Your task to perform on an android device: turn off smart reply in the gmail app Image 0: 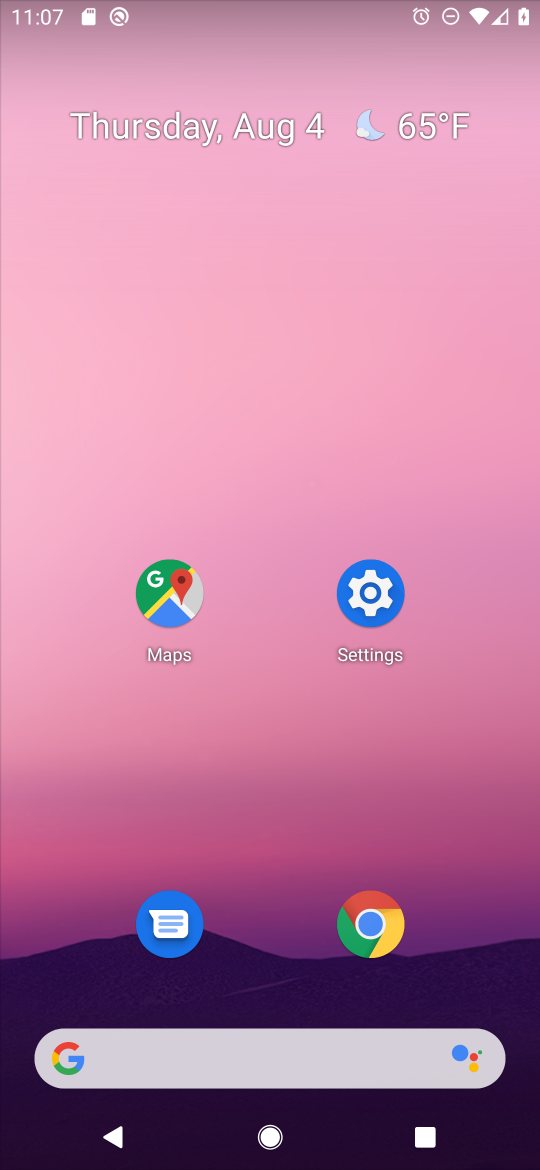
Step 0: drag from (314, 857) to (491, 166)
Your task to perform on an android device: turn off smart reply in the gmail app Image 1: 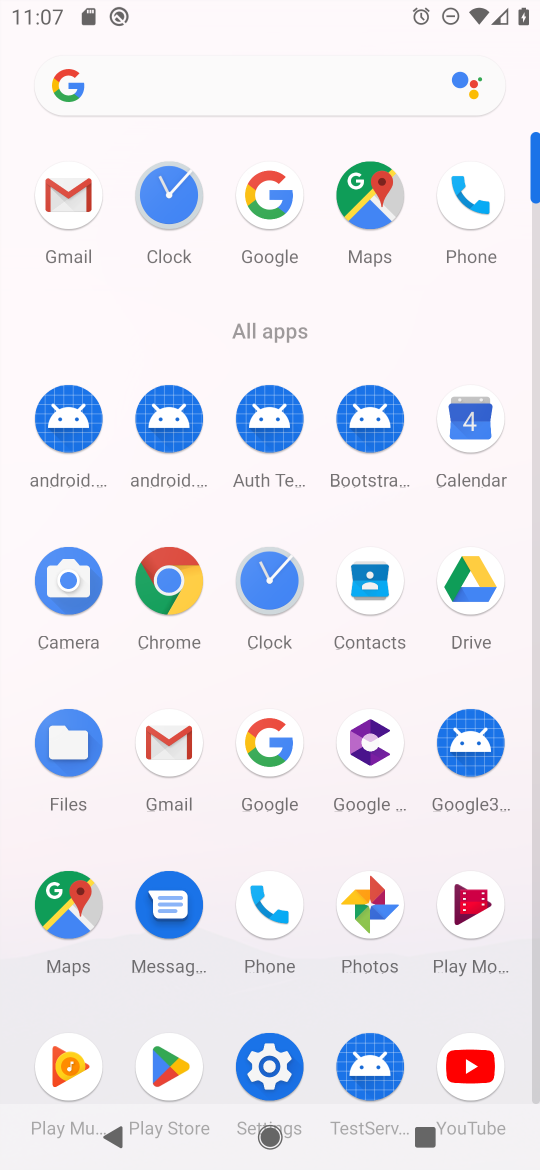
Step 1: click (68, 201)
Your task to perform on an android device: turn off smart reply in the gmail app Image 2: 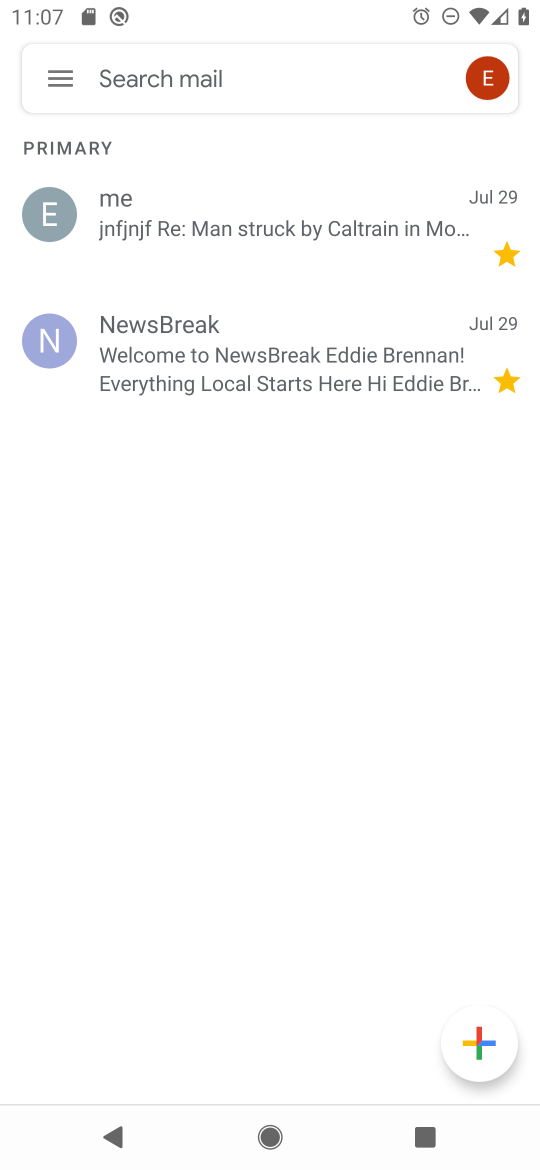
Step 2: click (58, 74)
Your task to perform on an android device: turn off smart reply in the gmail app Image 3: 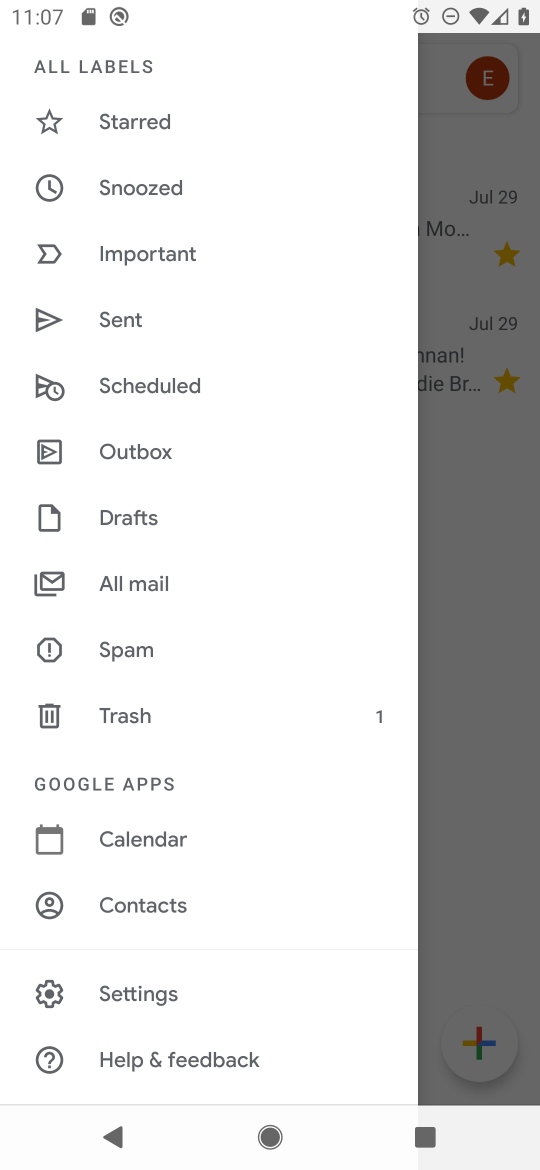
Step 3: click (150, 995)
Your task to perform on an android device: turn off smart reply in the gmail app Image 4: 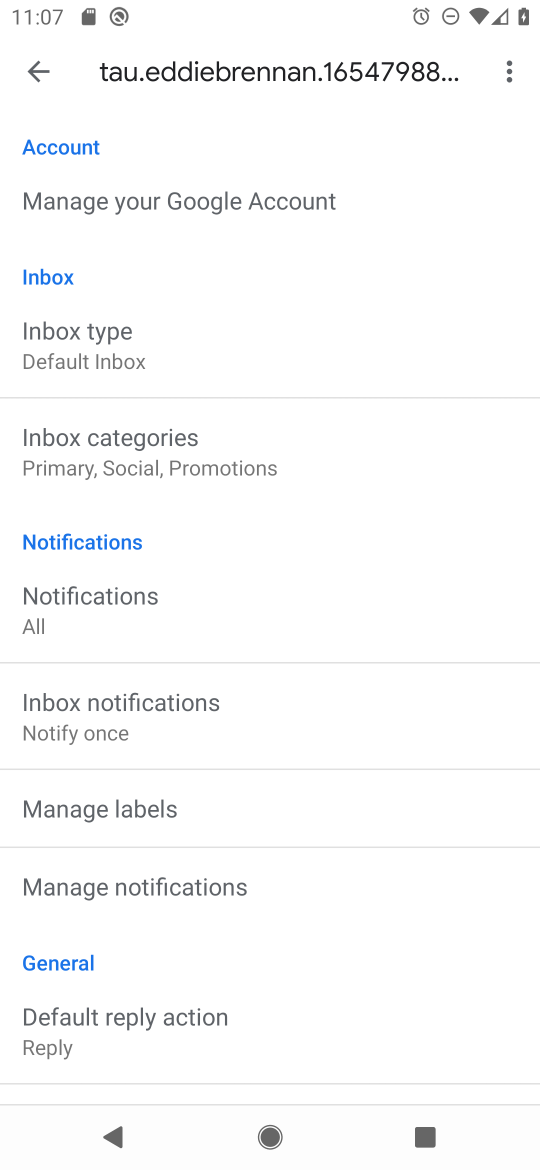
Step 4: drag from (312, 948) to (467, 93)
Your task to perform on an android device: turn off smart reply in the gmail app Image 5: 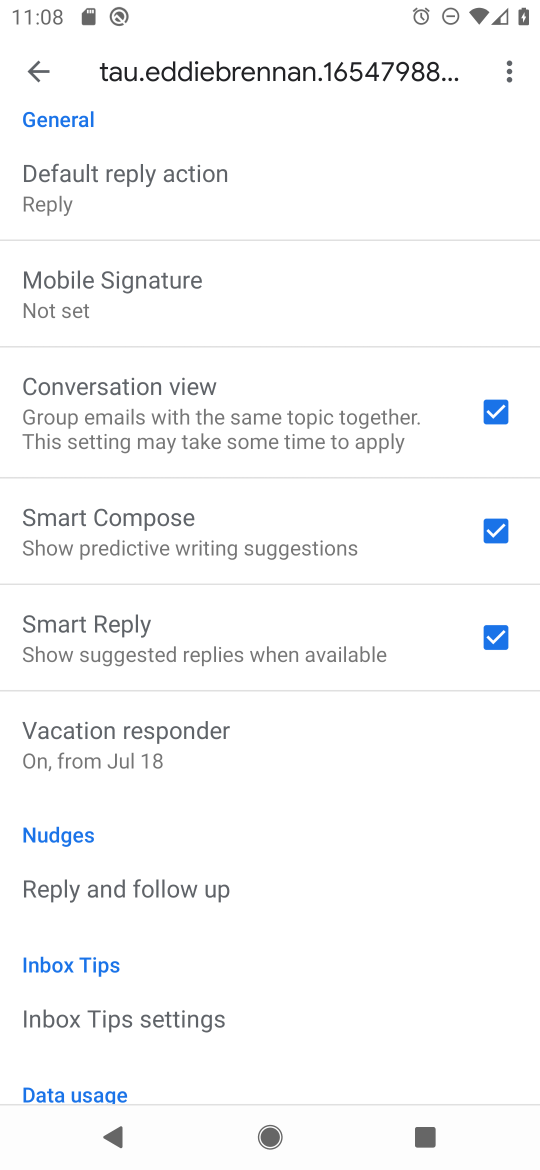
Step 5: click (499, 630)
Your task to perform on an android device: turn off smart reply in the gmail app Image 6: 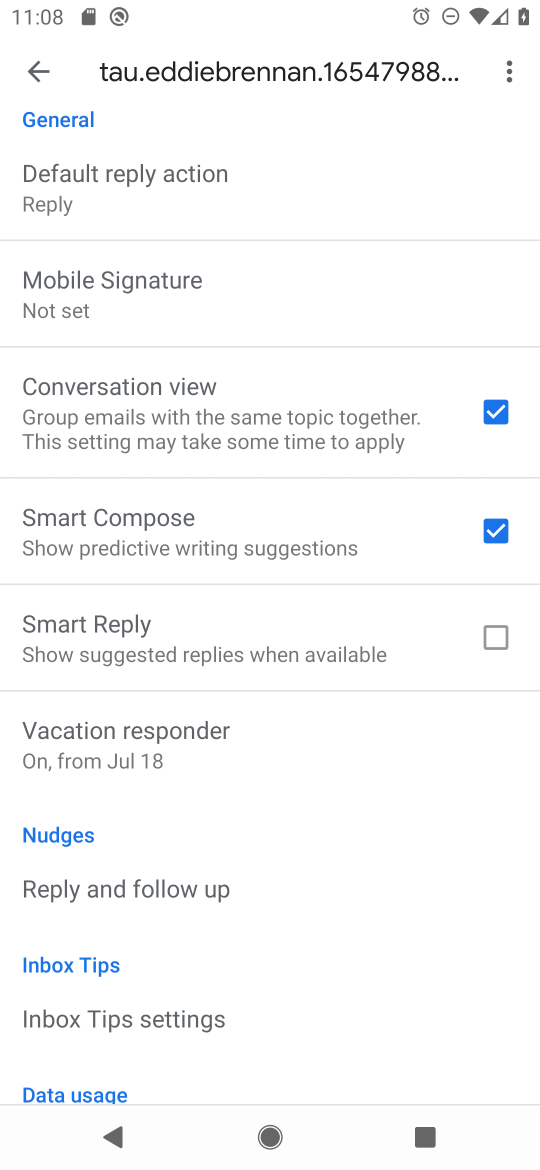
Step 6: task complete